Your task to perform on an android device: Go to Android settings Image 0: 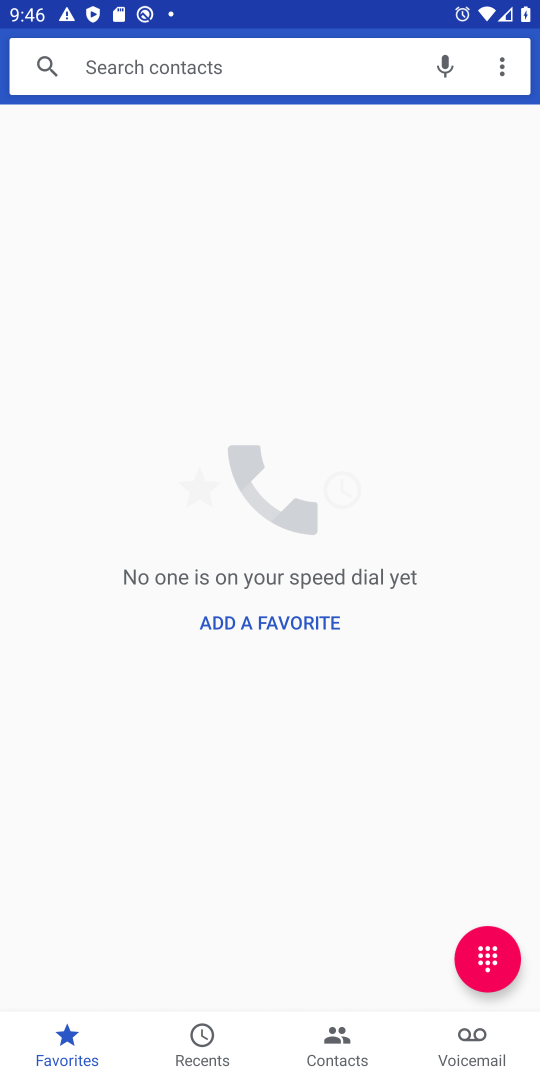
Step 0: press home button
Your task to perform on an android device: Go to Android settings Image 1: 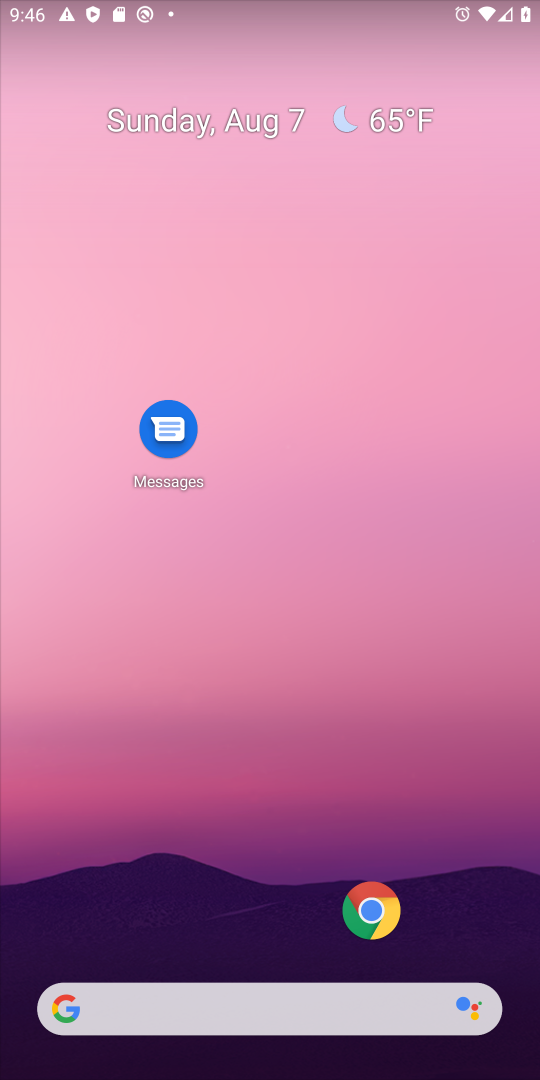
Step 1: drag from (160, 977) to (160, 641)
Your task to perform on an android device: Go to Android settings Image 2: 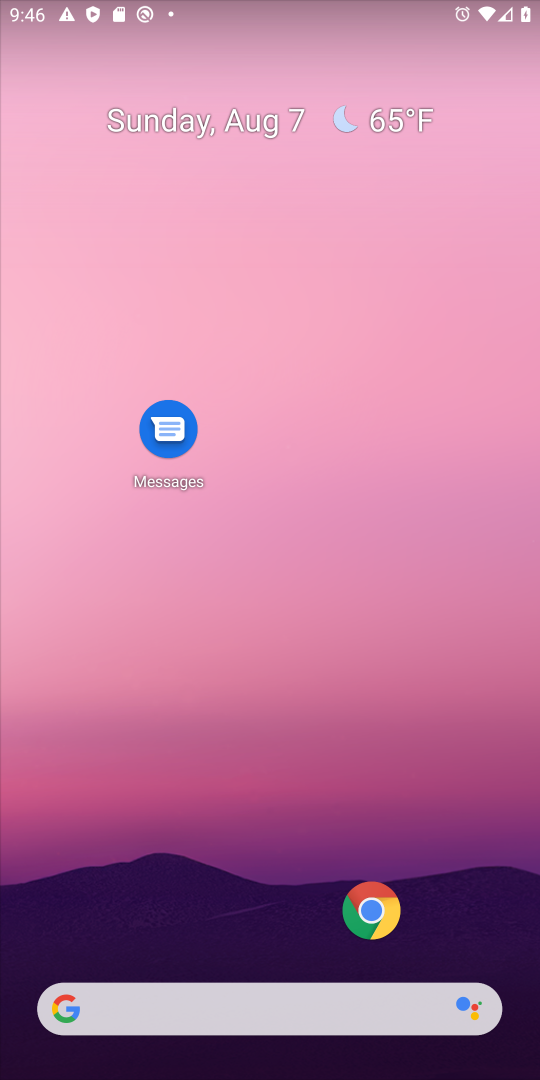
Step 2: drag from (197, 974) to (202, 440)
Your task to perform on an android device: Go to Android settings Image 3: 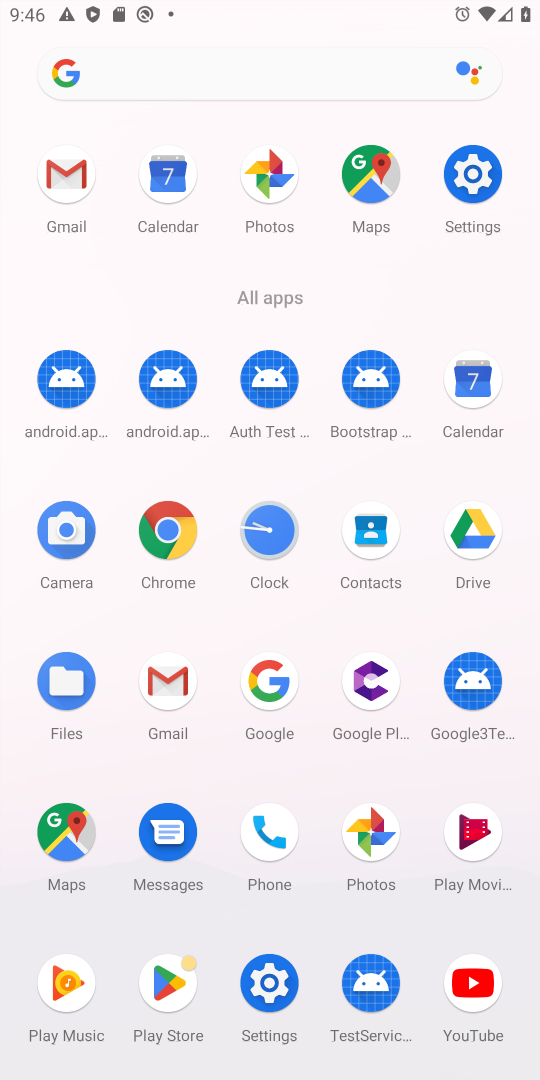
Step 3: click (460, 175)
Your task to perform on an android device: Go to Android settings Image 4: 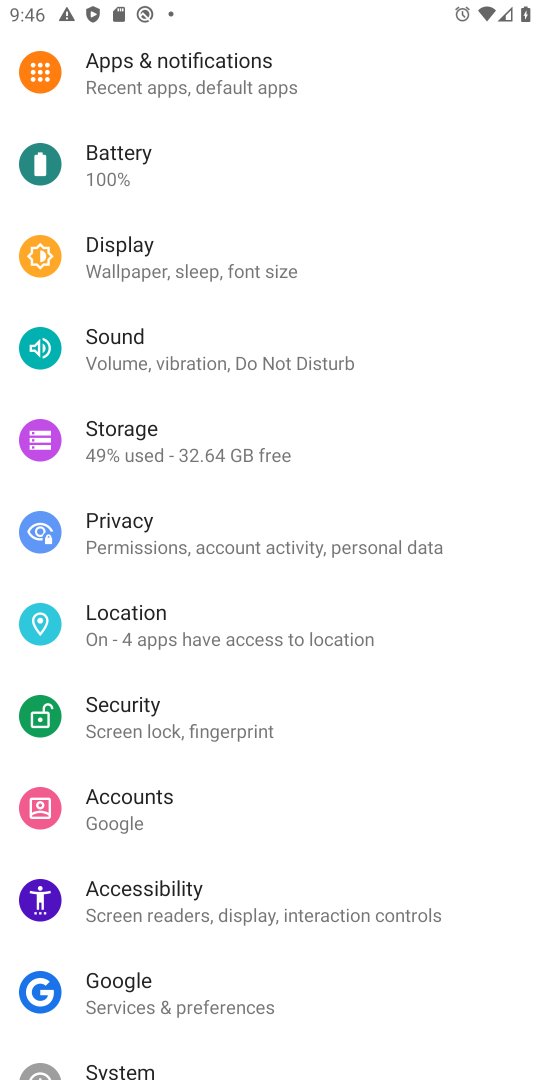
Step 4: task complete